Your task to perform on an android device: Add "lenovo thinkpad" to the cart on ebay Image 0: 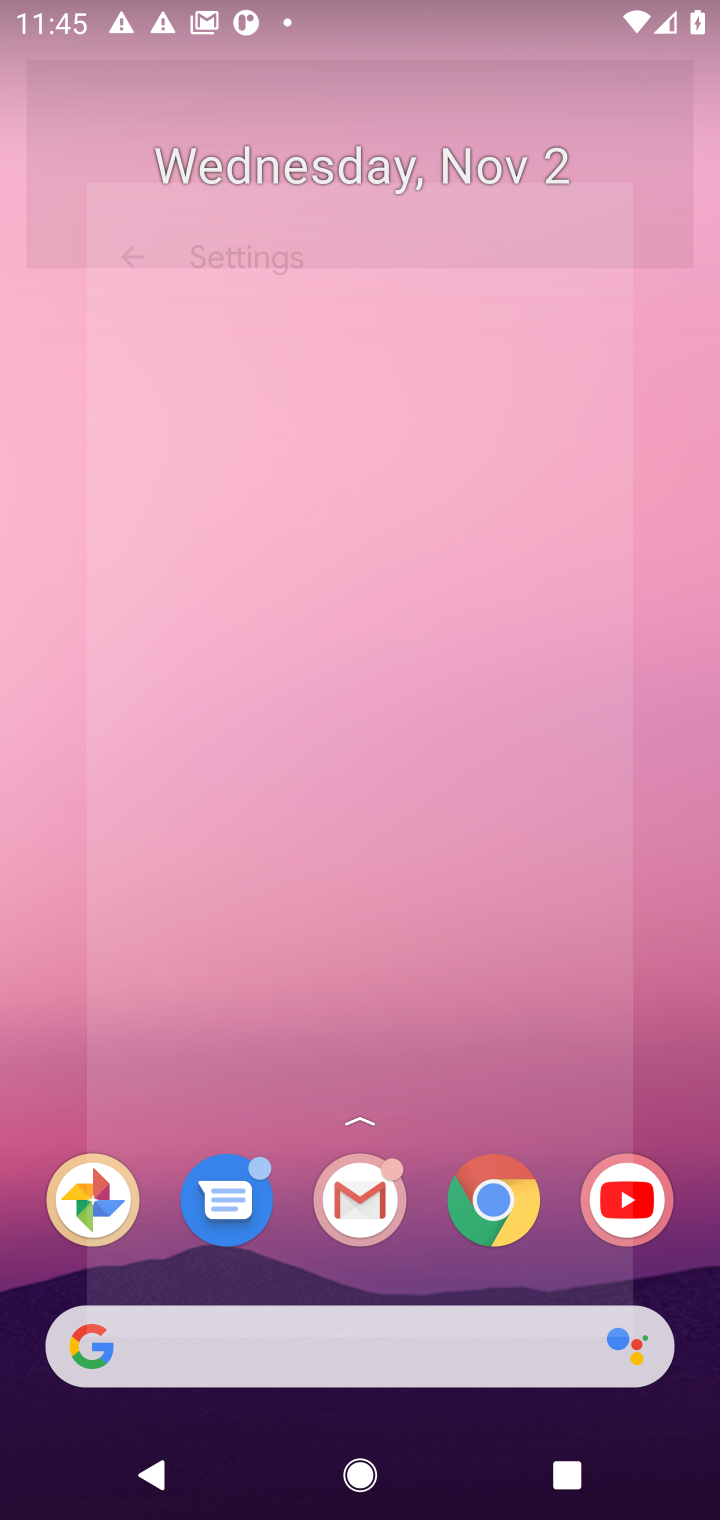
Step 0: click (477, 1200)
Your task to perform on an android device: Add "lenovo thinkpad" to the cart on ebay Image 1: 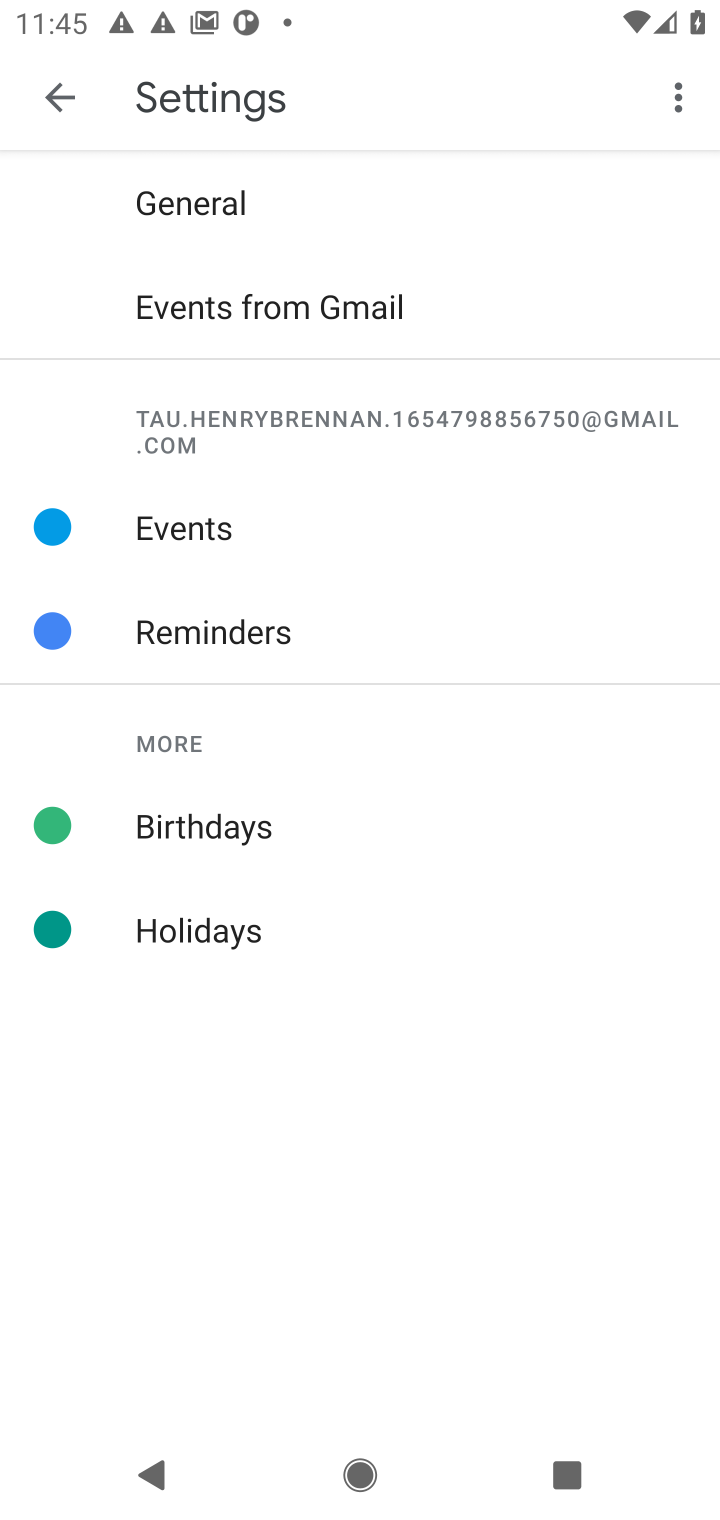
Step 1: press home button
Your task to perform on an android device: Add "lenovo thinkpad" to the cart on ebay Image 2: 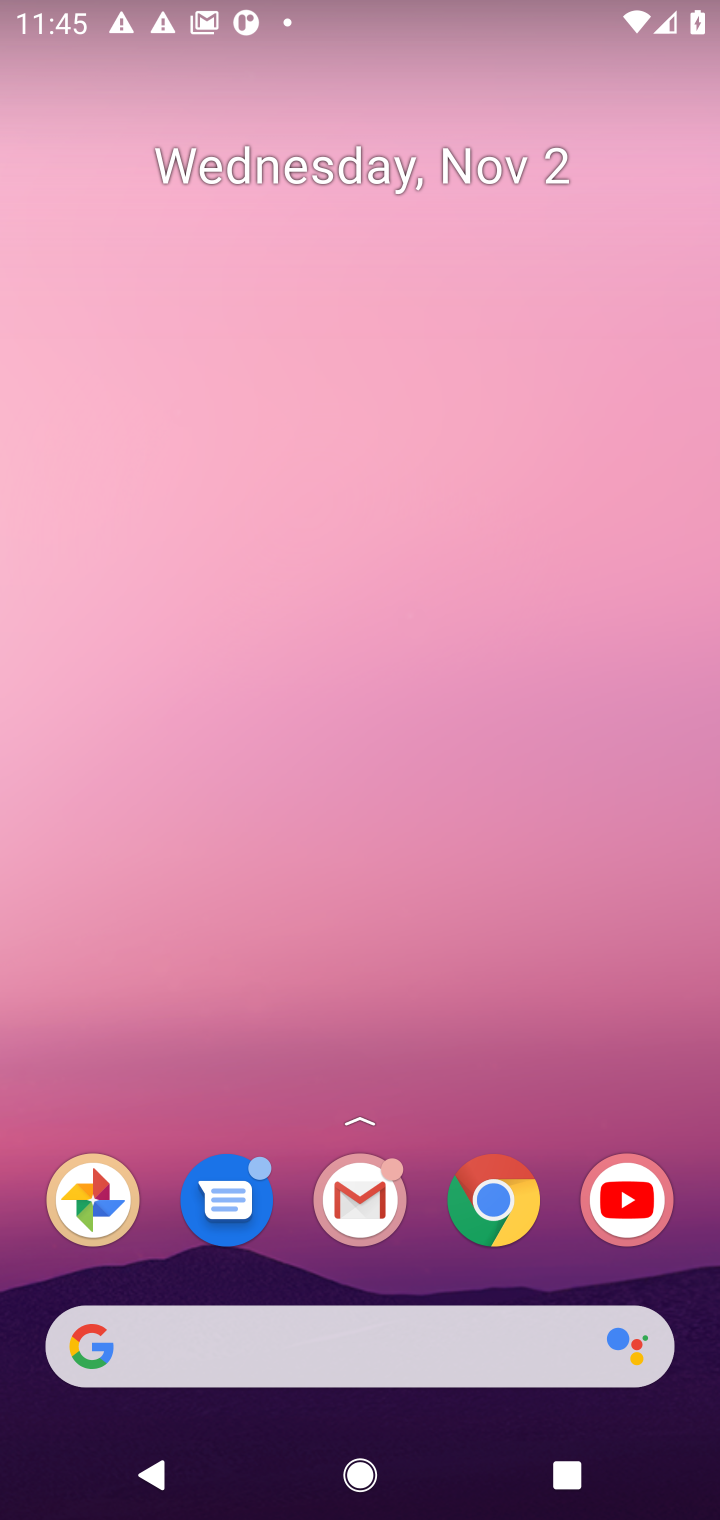
Step 2: click (510, 1203)
Your task to perform on an android device: Add "lenovo thinkpad" to the cart on ebay Image 3: 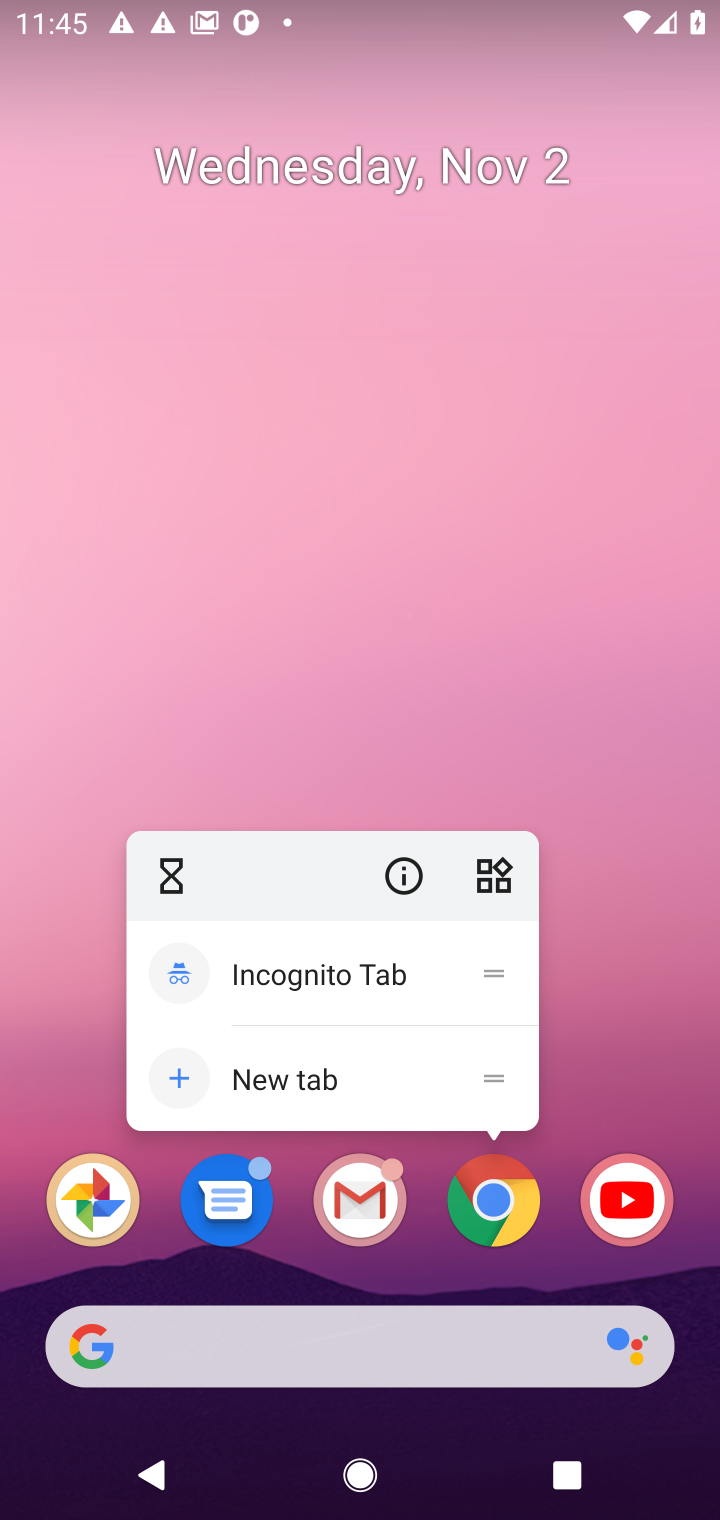
Step 3: click (490, 1191)
Your task to perform on an android device: Add "lenovo thinkpad" to the cart on ebay Image 4: 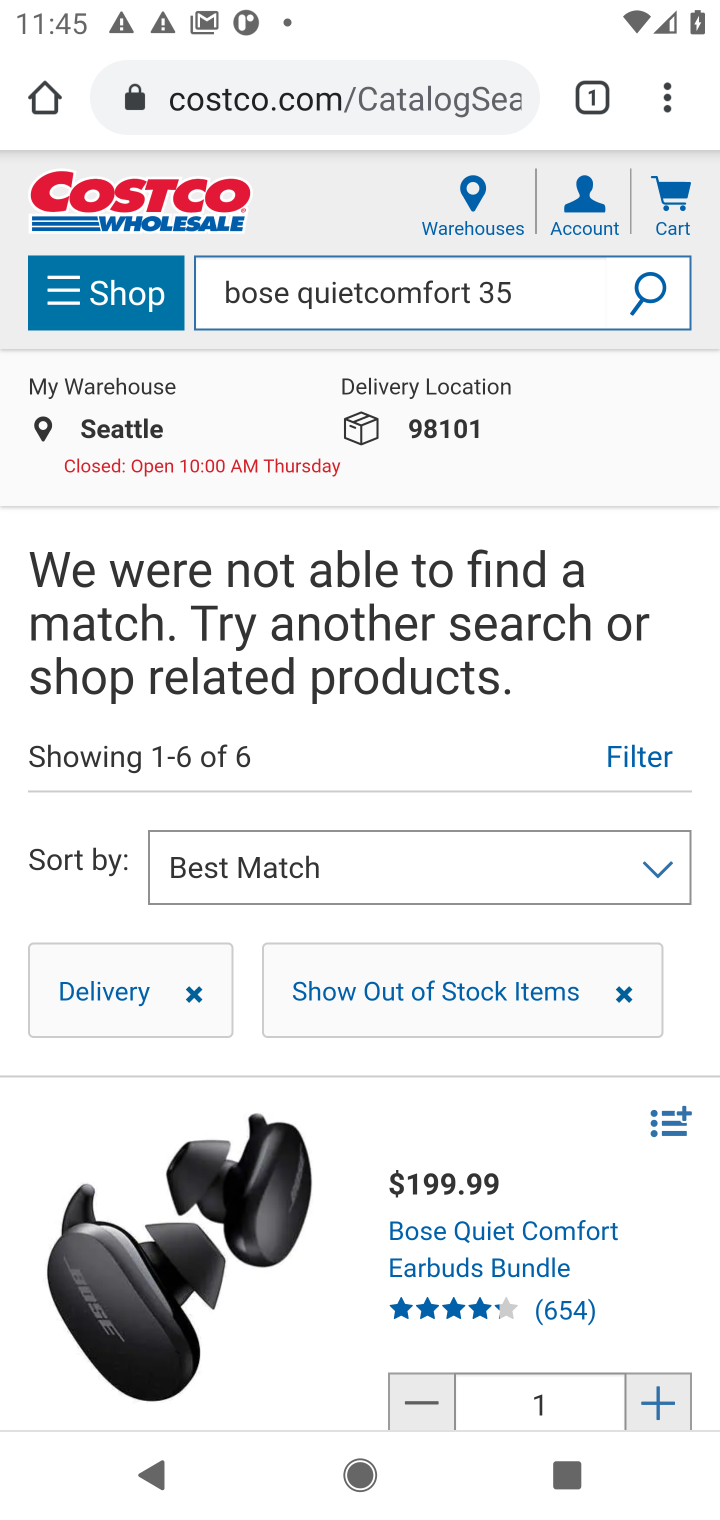
Step 4: click (365, 91)
Your task to perform on an android device: Add "lenovo thinkpad" to the cart on ebay Image 5: 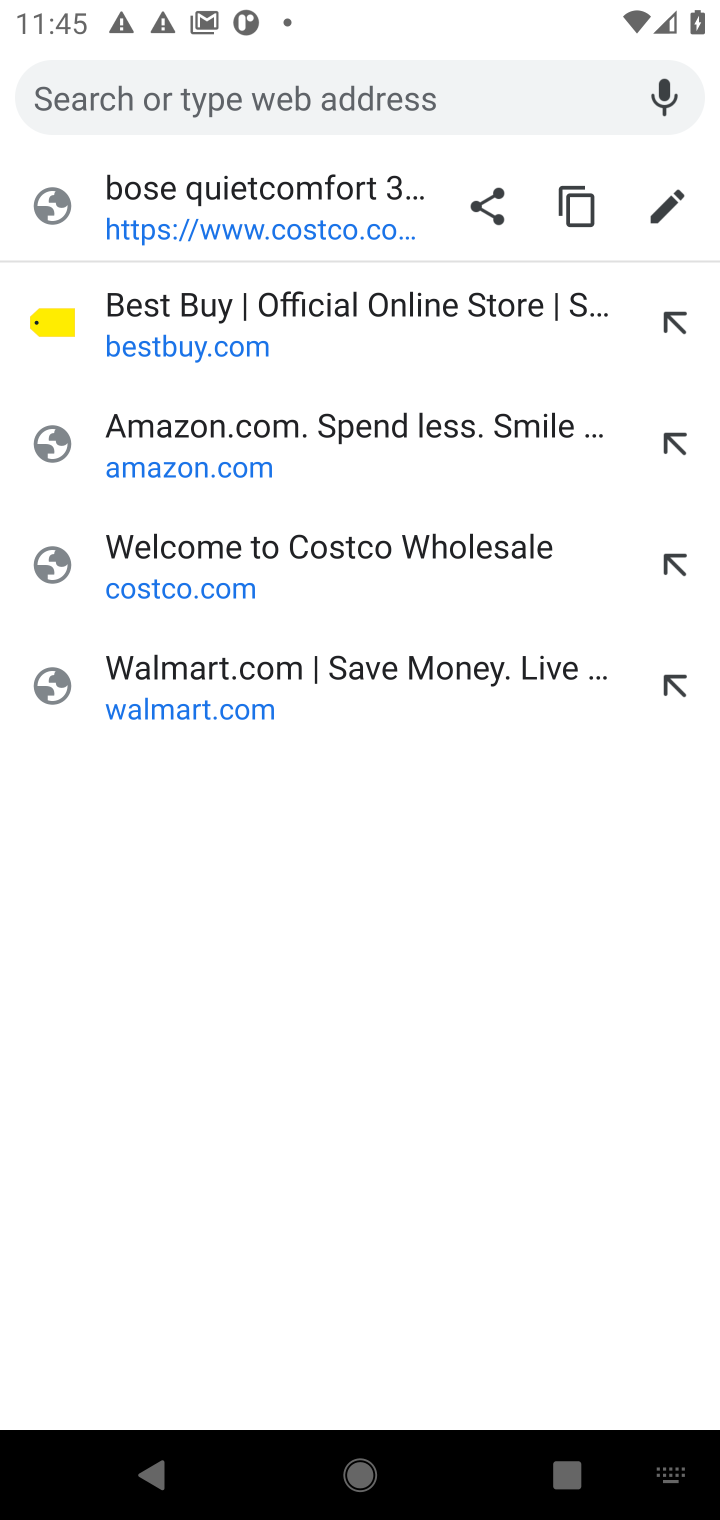
Step 5: type "ebay"
Your task to perform on an android device: Add "lenovo thinkpad" to the cart on ebay Image 6: 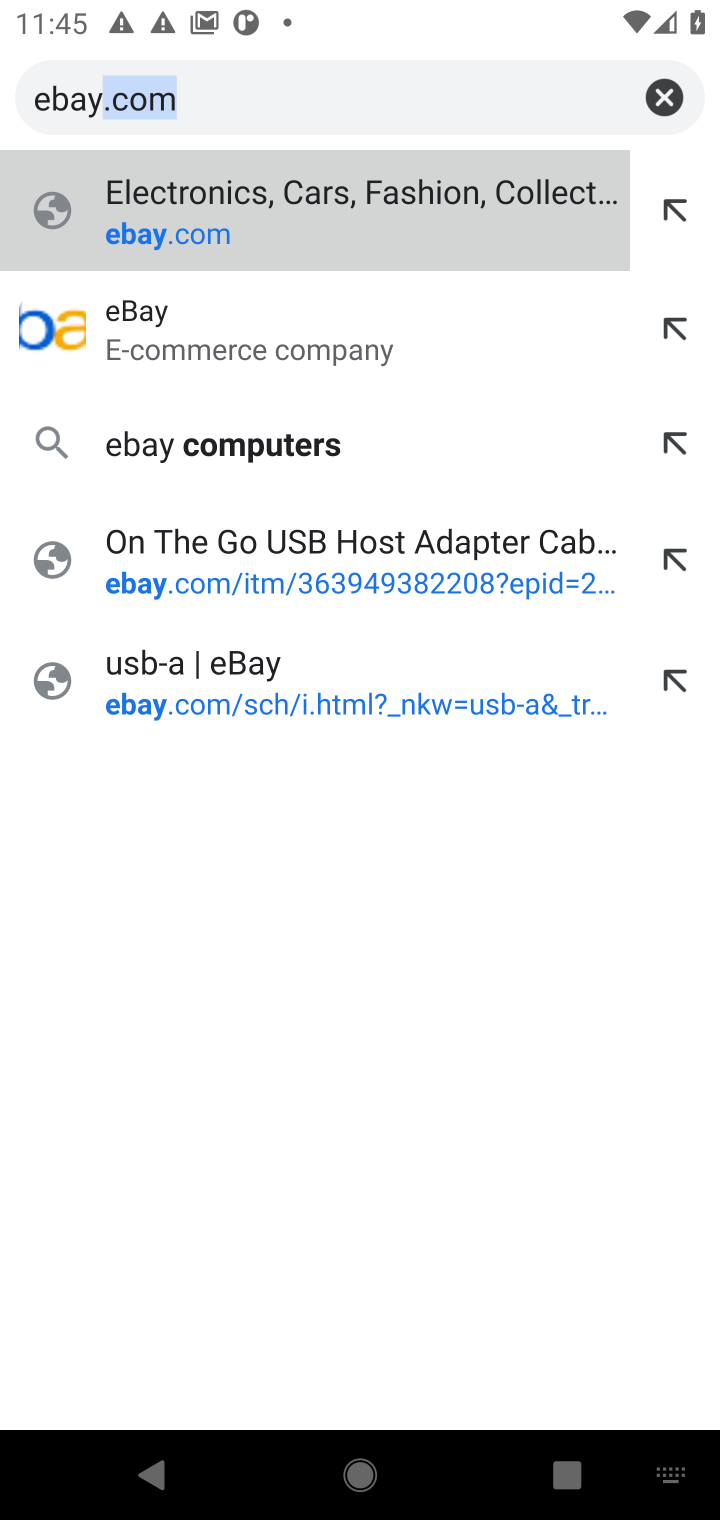
Step 6: press enter
Your task to perform on an android device: Add "lenovo thinkpad" to the cart on ebay Image 7: 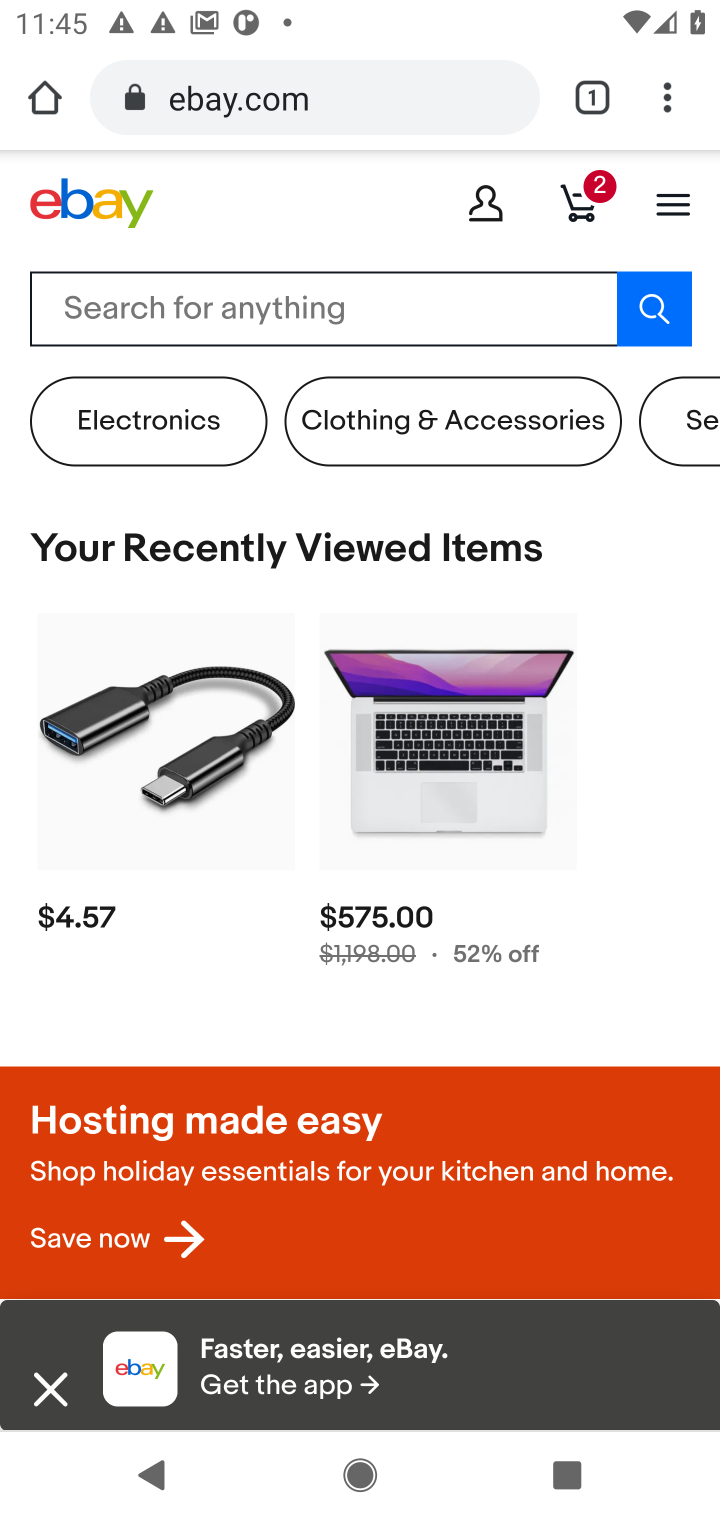
Step 7: click (282, 313)
Your task to perform on an android device: Add "lenovo thinkpad" to the cart on ebay Image 8: 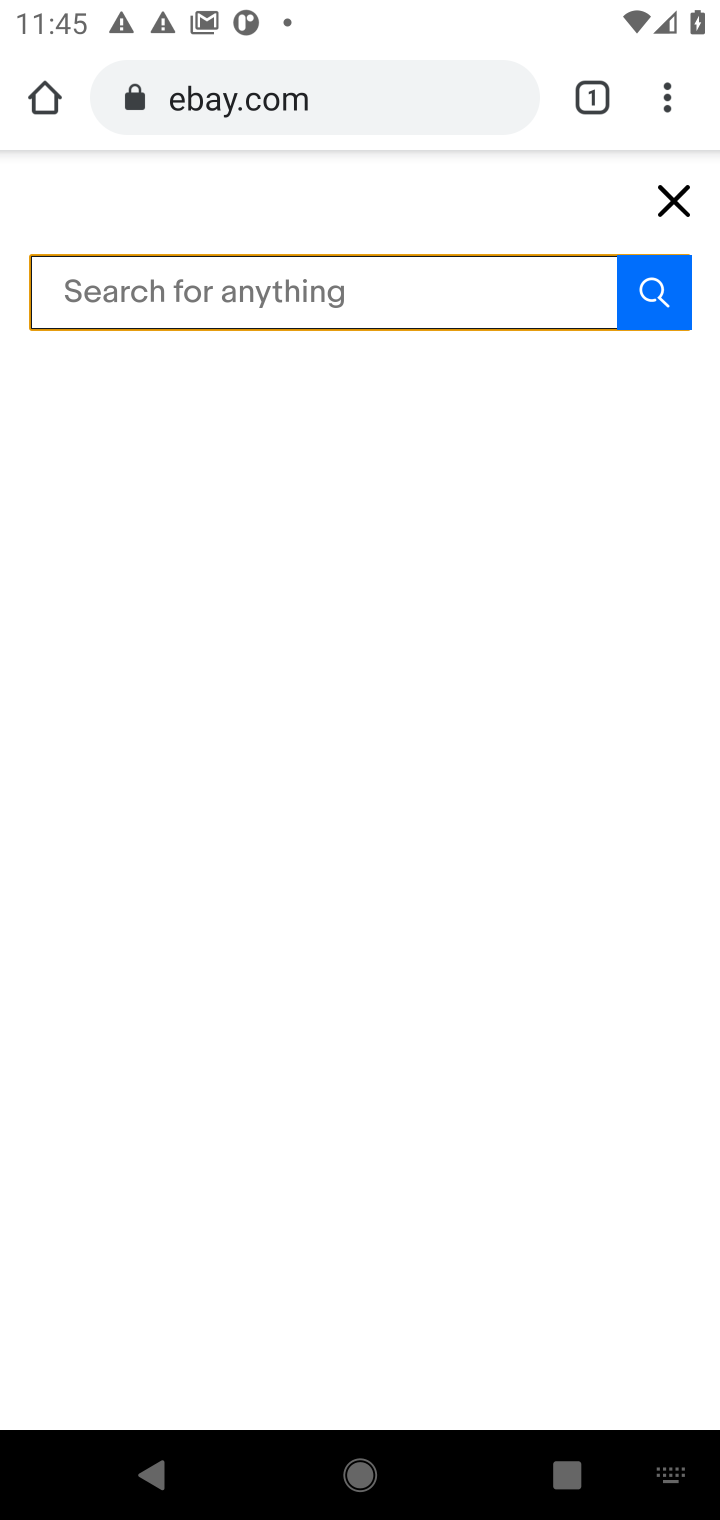
Step 8: type "lenovo thinkpad"
Your task to perform on an android device: Add "lenovo thinkpad" to the cart on ebay Image 9: 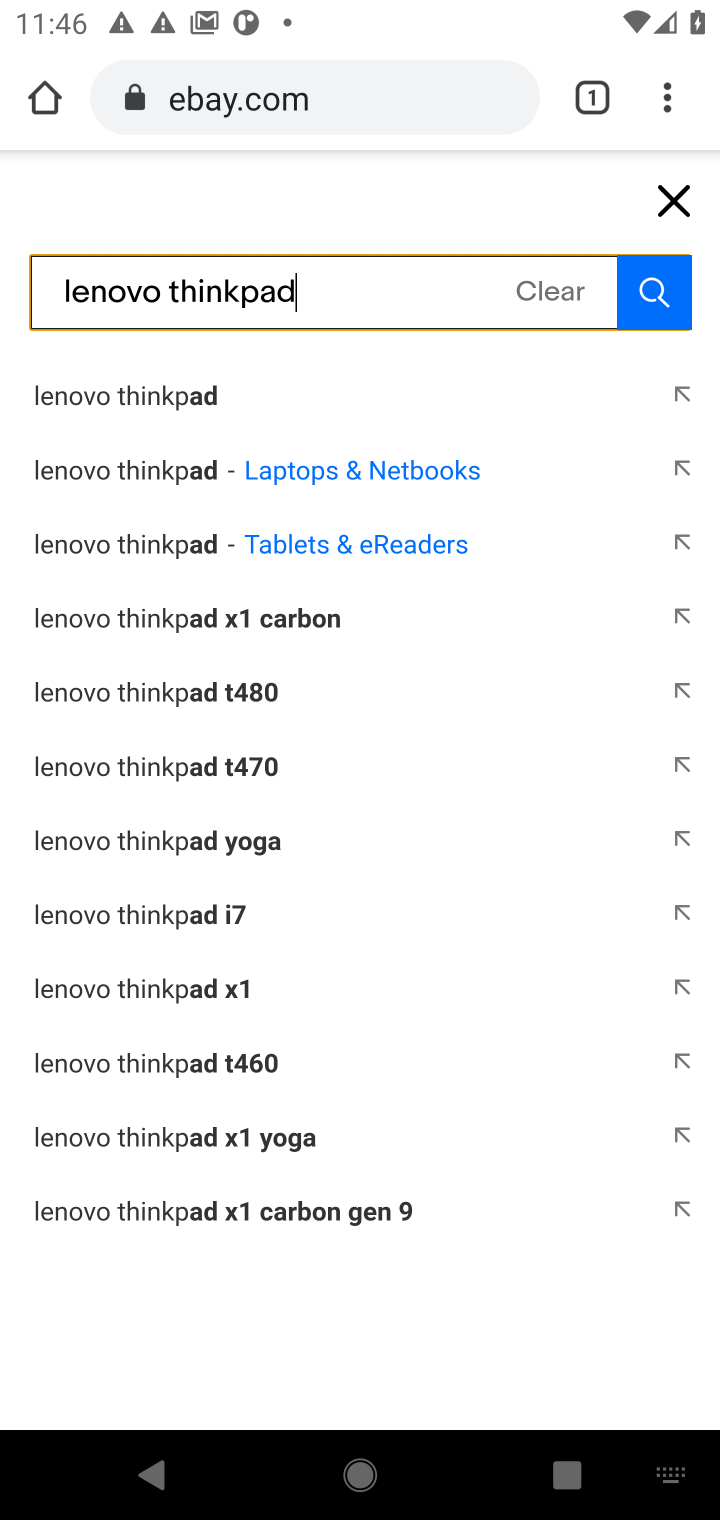
Step 9: click (183, 402)
Your task to perform on an android device: Add "lenovo thinkpad" to the cart on ebay Image 10: 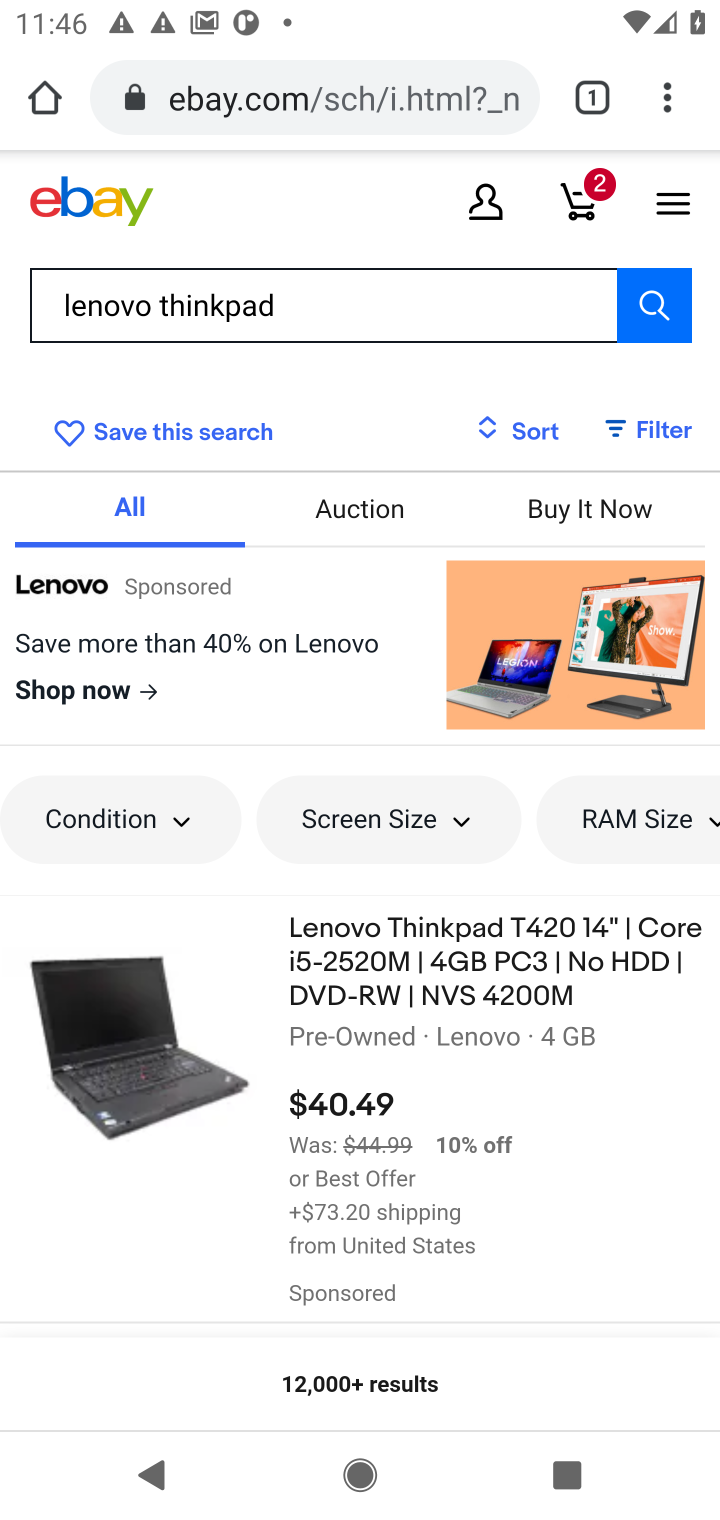
Step 10: click (148, 1058)
Your task to perform on an android device: Add "lenovo thinkpad" to the cart on ebay Image 11: 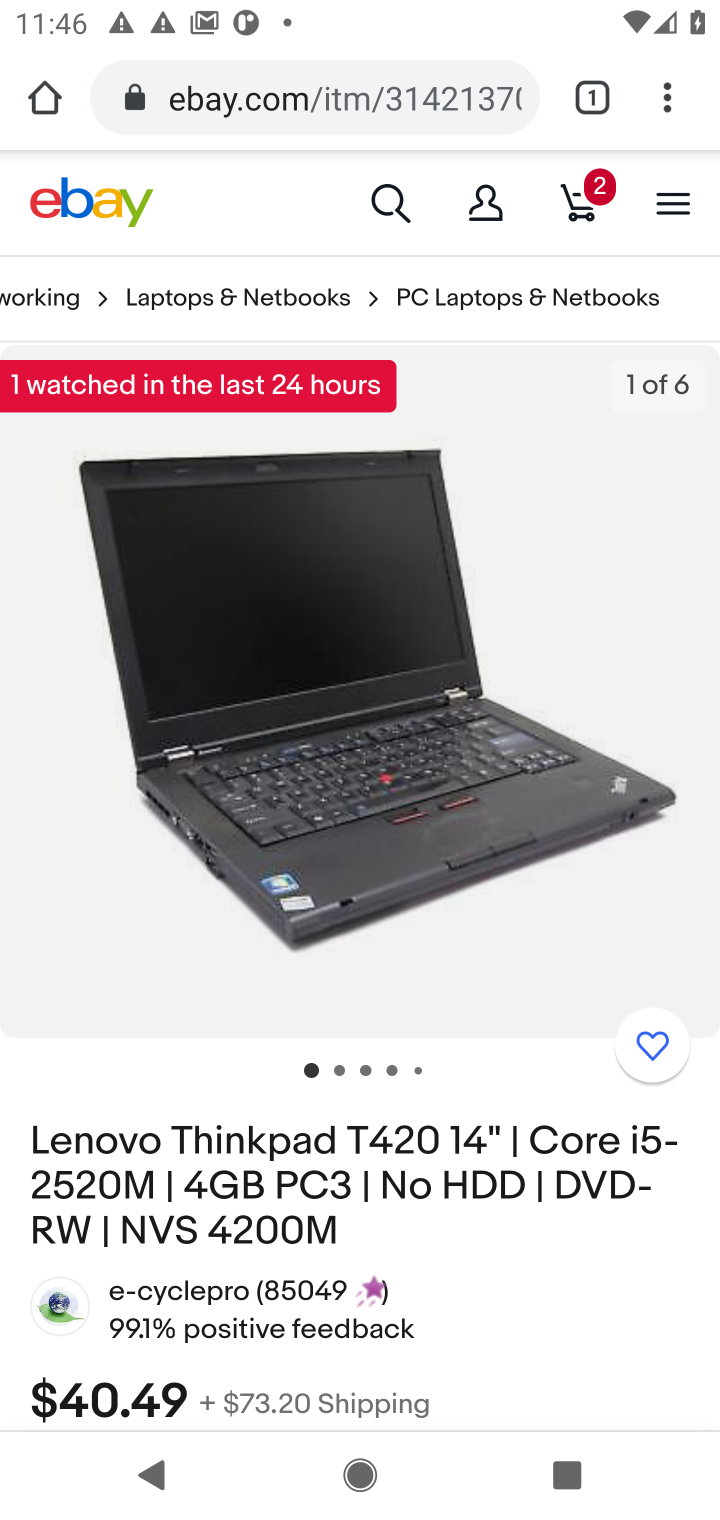
Step 11: drag from (425, 1220) to (353, 594)
Your task to perform on an android device: Add "lenovo thinkpad" to the cart on ebay Image 12: 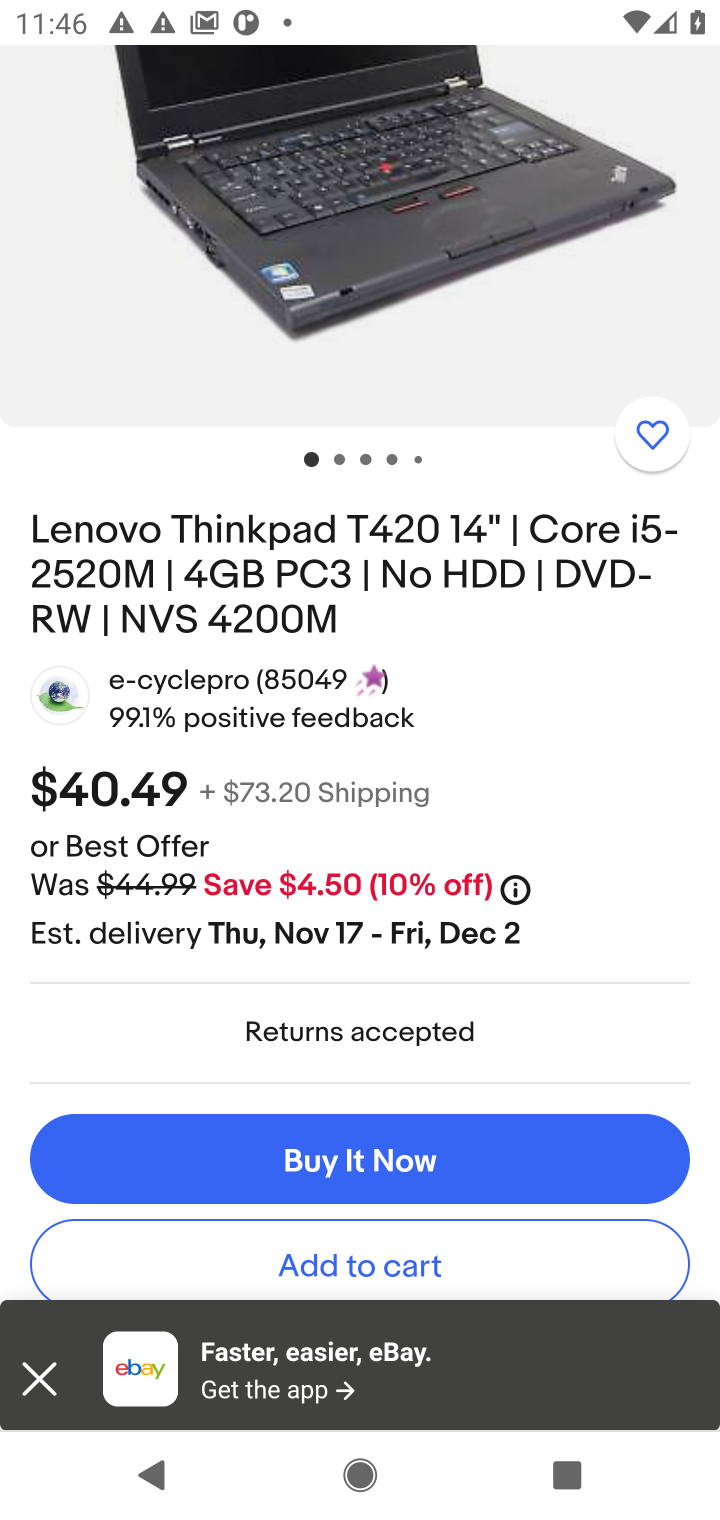
Step 12: click (431, 1264)
Your task to perform on an android device: Add "lenovo thinkpad" to the cart on ebay Image 13: 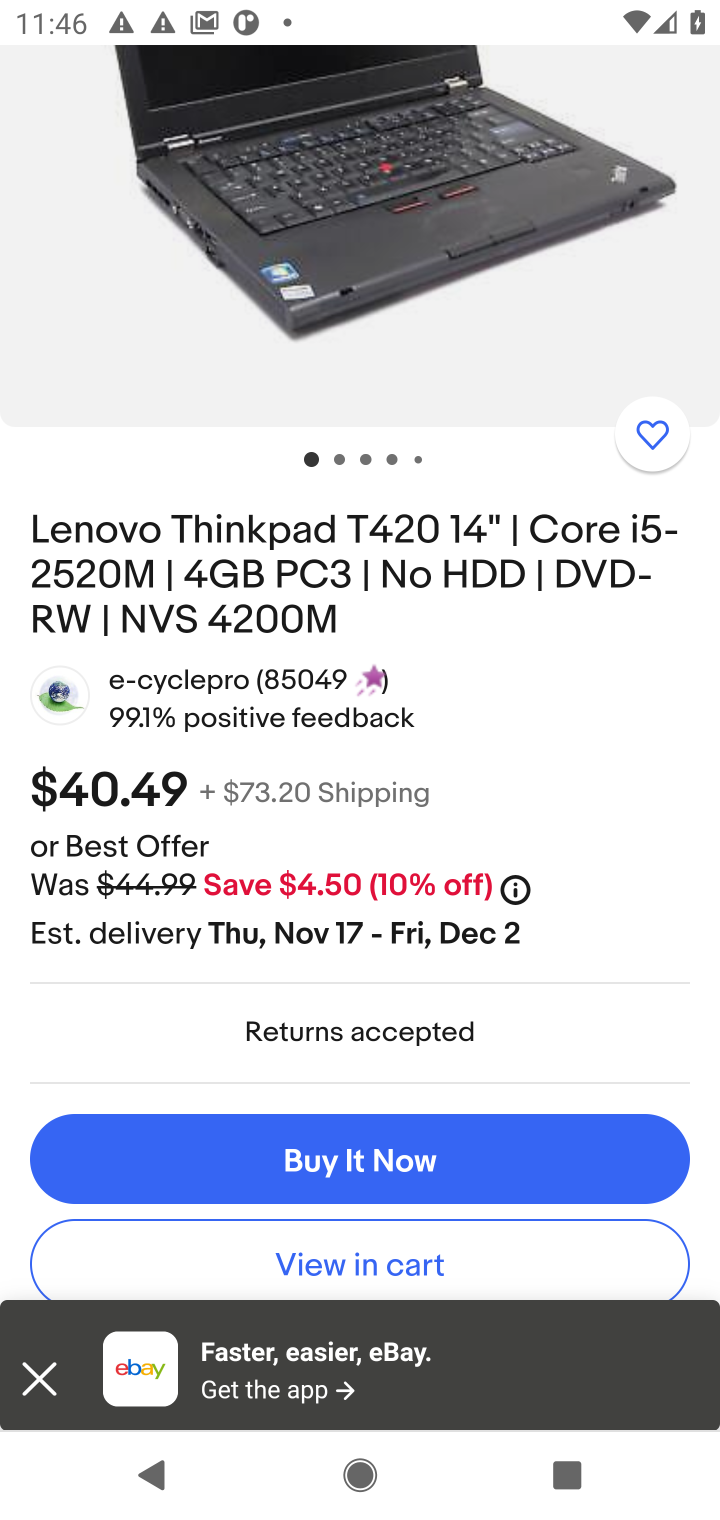
Step 13: task complete